Your task to perform on an android device: toggle notification dots Image 0: 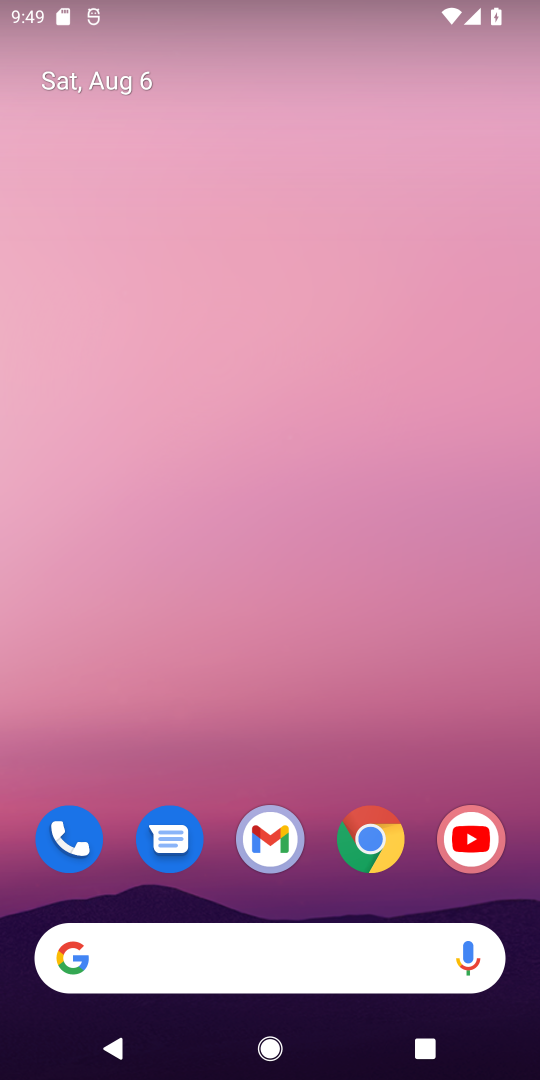
Step 0: press home button
Your task to perform on an android device: toggle notification dots Image 1: 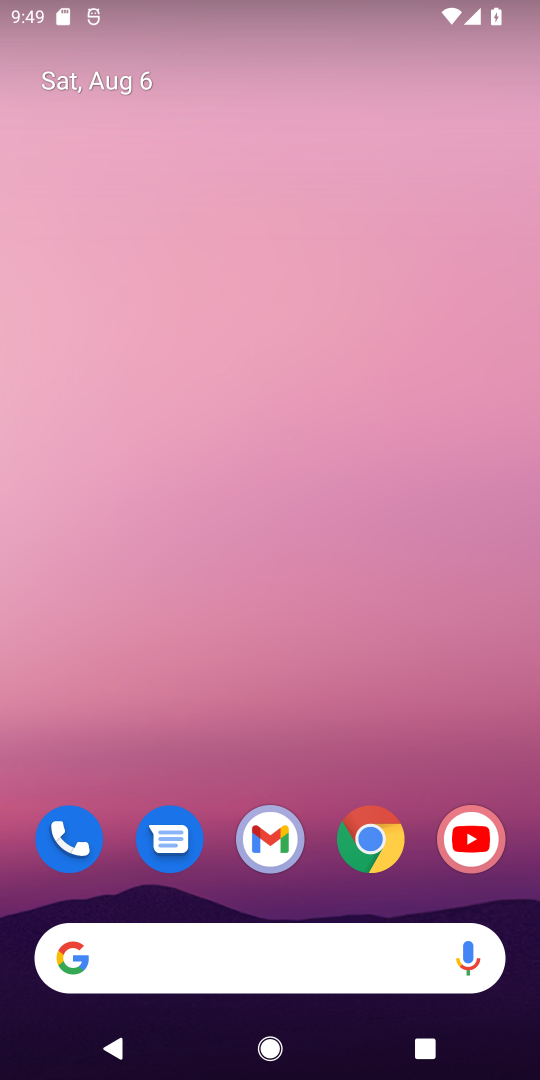
Step 1: drag from (328, 896) to (344, 95)
Your task to perform on an android device: toggle notification dots Image 2: 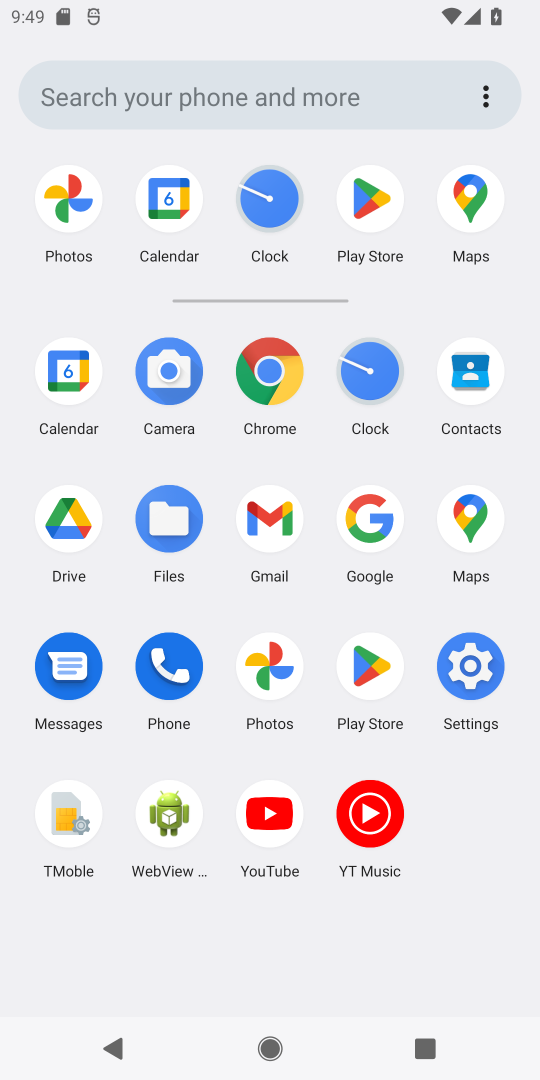
Step 2: click (477, 661)
Your task to perform on an android device: toggle notification dots Image 3: 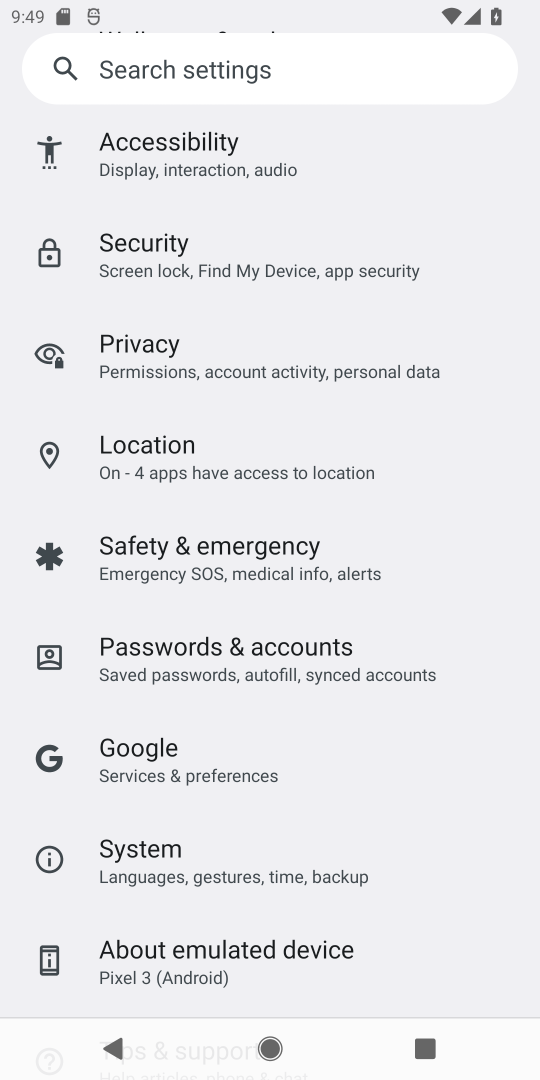
Step 3: drag from (199, 172) to (371, 936)
Your task to perform on an android device: toggle notification dots Image 4: 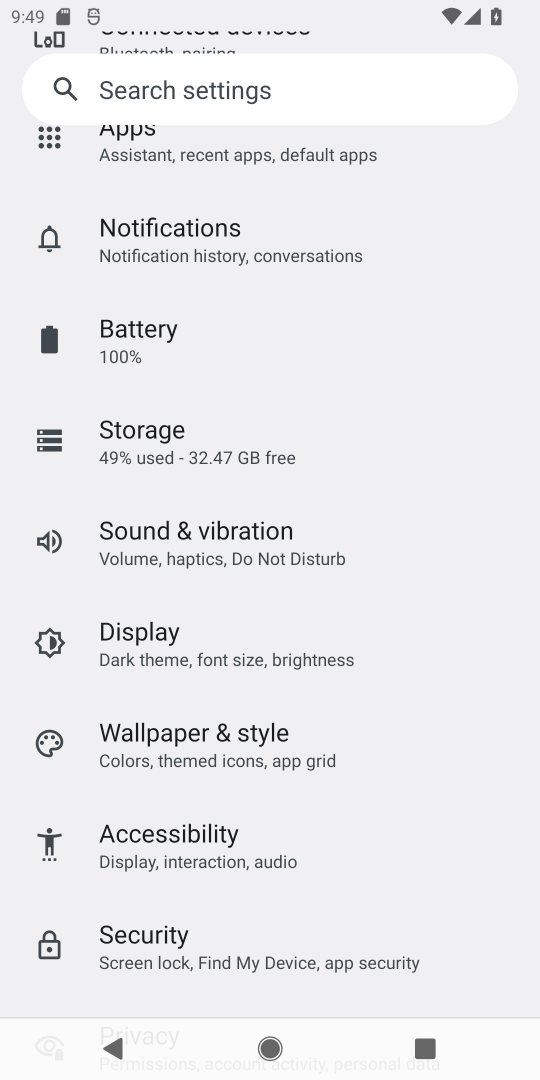
Step 4: click (263, 230)
Your task to perform on an android device: toggle notification dots Image 5: 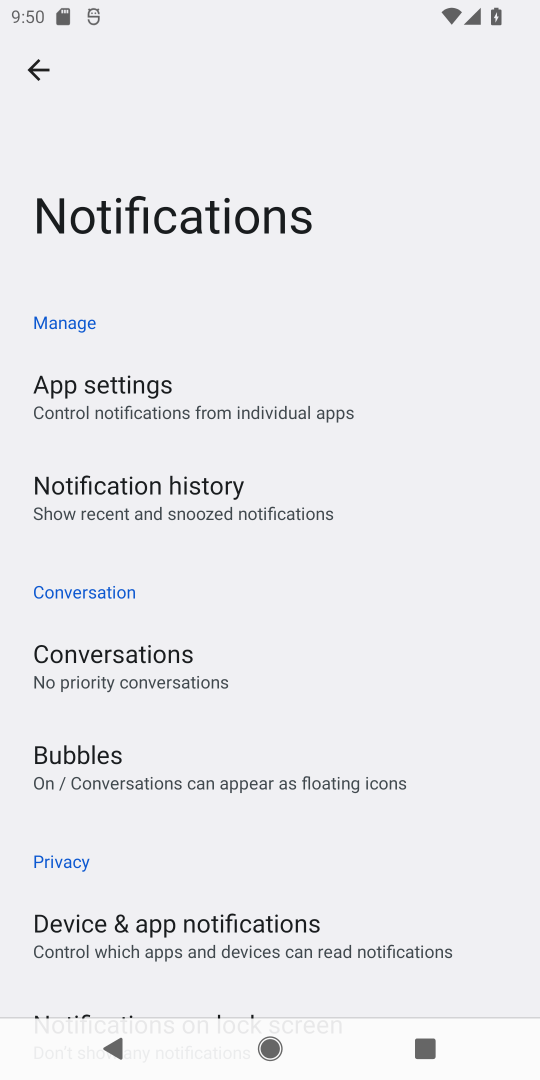
Step 5: drag from (261, 901) to (284, 170)
Your task to perform on an android device: toggle notification dots Image 6: 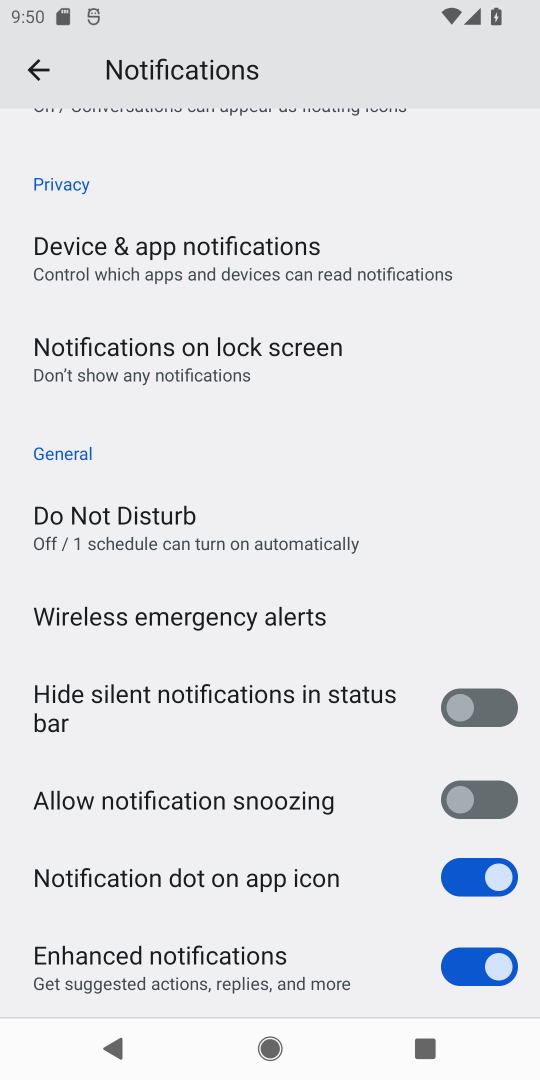
Step 6: click (455, 873)
Your task to perform on an android device: toggle notification dots Image 7: 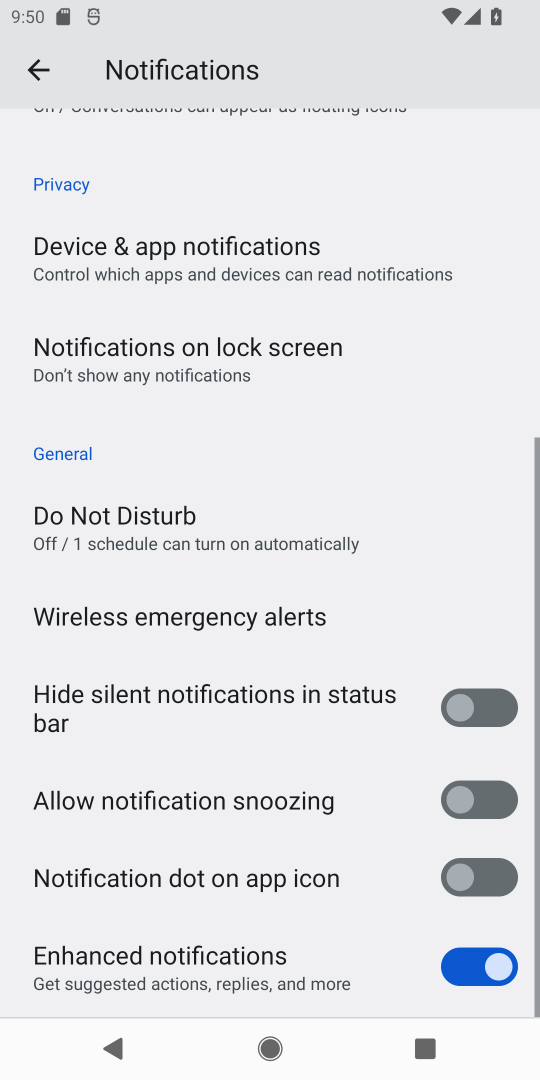
Step 7: task complete